Your task to perform on an android device: delete the emails in spam in the gmail app Image 0: 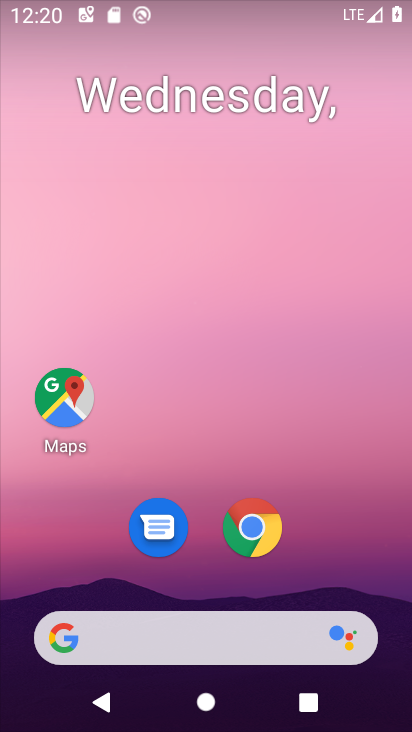
Step 0: drag from (262, 643) to (348, 25)
Your task to perform on an android device: delete the emails in spam in the gmail app Image 1: 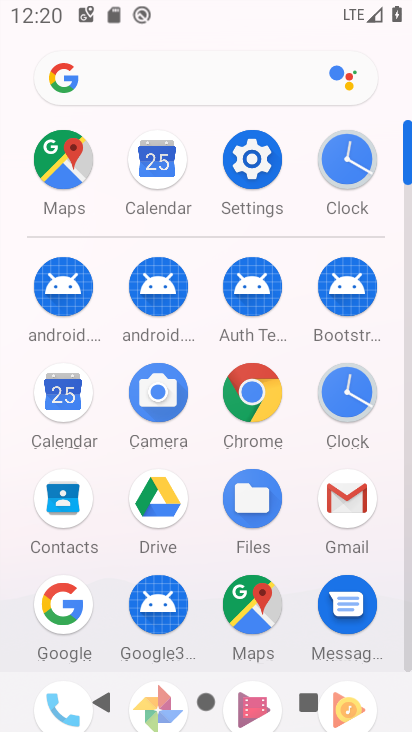
Step 1: click (356, 498)
Your task to perform on an android device: delete the emails in spam in the gmail app Image 2: 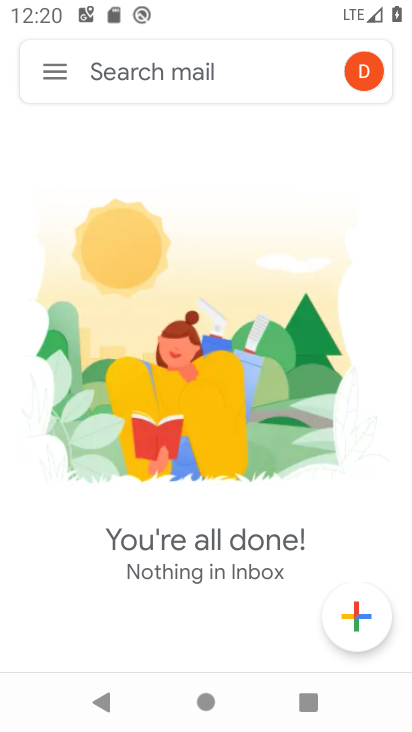
Step 2: click (53, 62)
Your task to perform on an android device: delete the emails in spam in the gmail app Image 3: 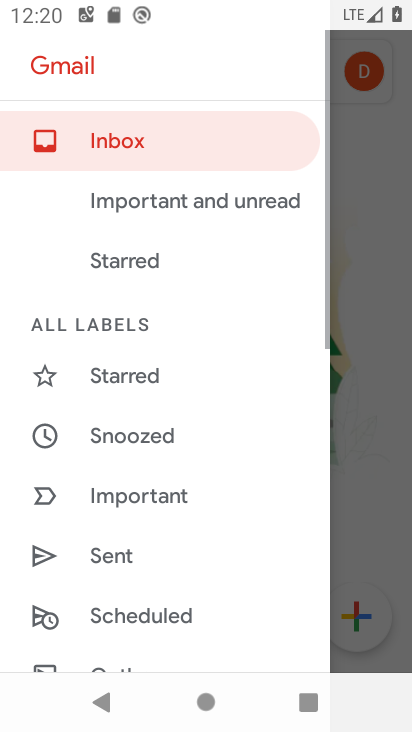
Step 3: drag from (167, 640) to (226, 195)
Your task to perform on an android device: delete the emails in spam in the gmail app Image 4: 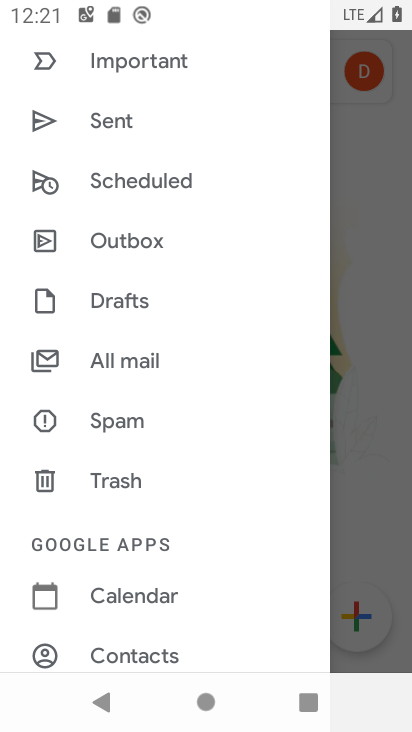
Step 4: click (132, 418)
Your task to perform on an android device: delete the emails in spam in the gmail app Image 5: 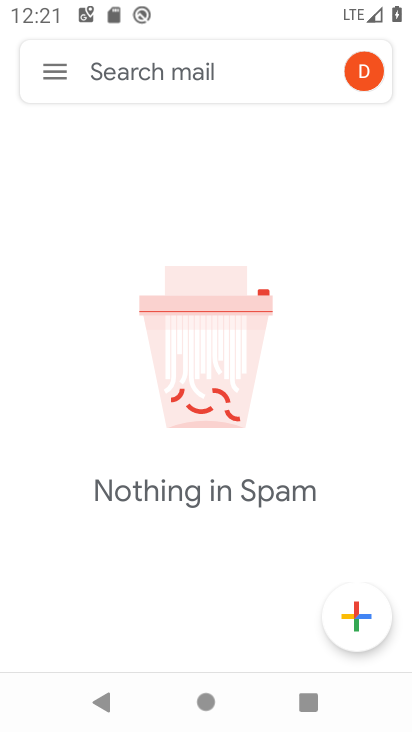
Step 5: task complete